Your task to perform on an android device: Open eBay Image 0: 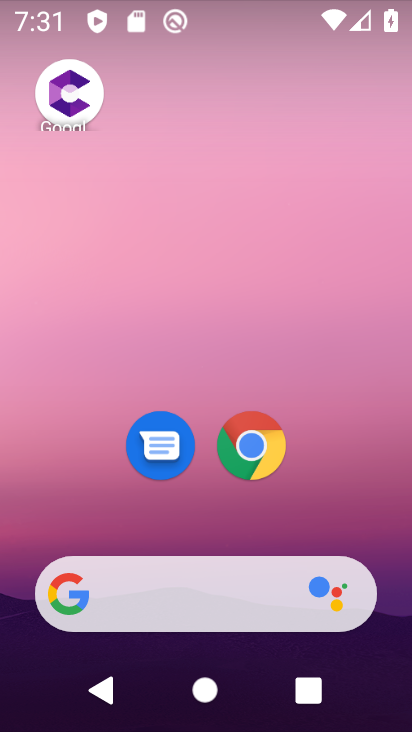
Step 0: drag from (202, 586) to (163, 171)
Your task to perform on an android device: Open eBay Image 1: 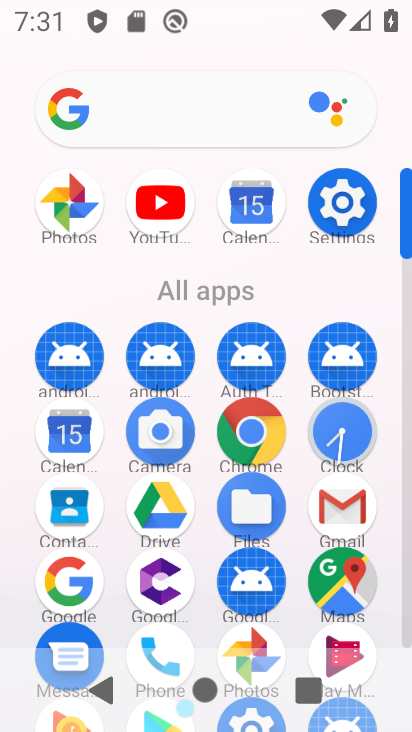
Step 1: click (251, 435)
Your task to perform on an android device: Open eBay Image 2: 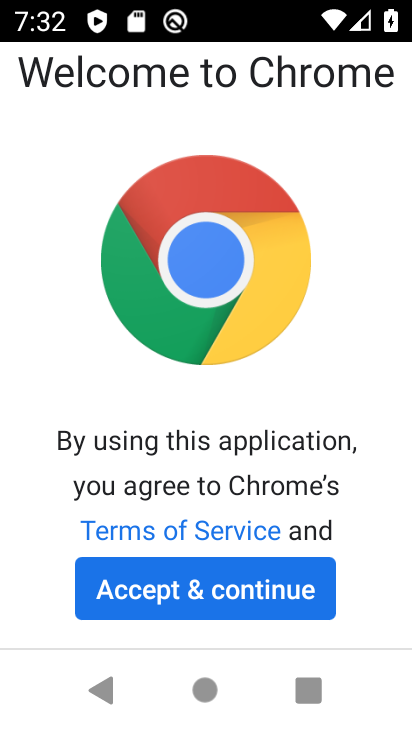
Step 2: click (214, 605)
Your task to perform on an android device: Open eBay Image 3: 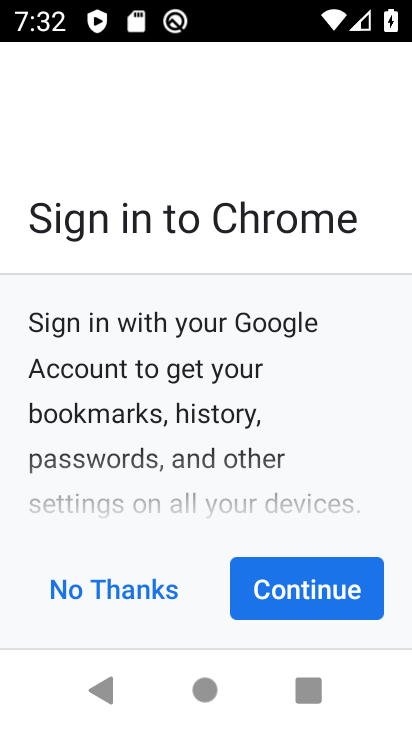
Step 3: click (273, 598)
Your task to perform on an android device: Open eBay Image 4: 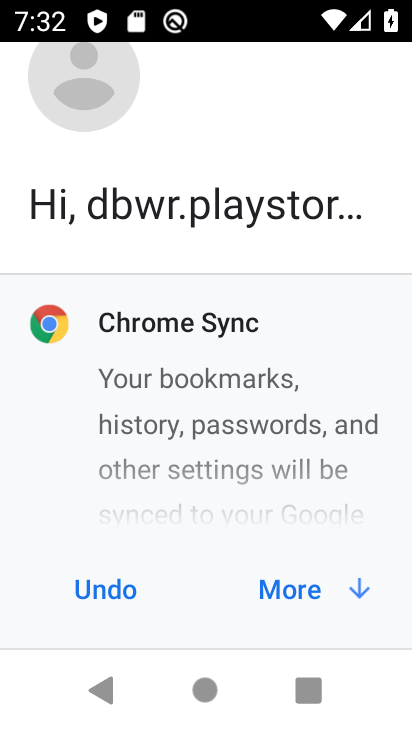
Step 4: click (288, 586)
Your task to perform on an android device: Open eBay Image 5: 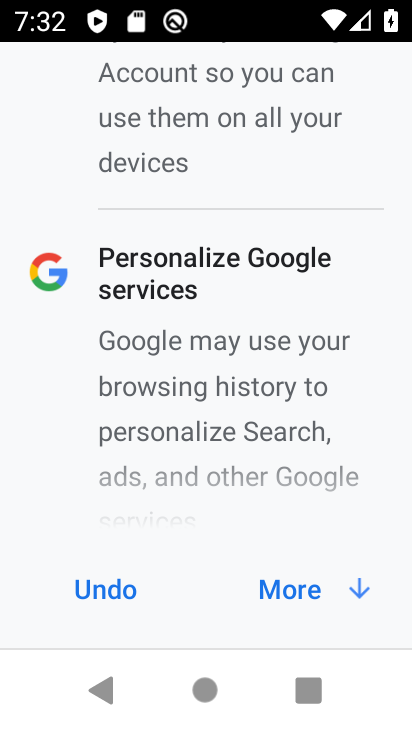
Step 5: click (303, 597)
Your task to perform on an android device: Open eBay Image 6: 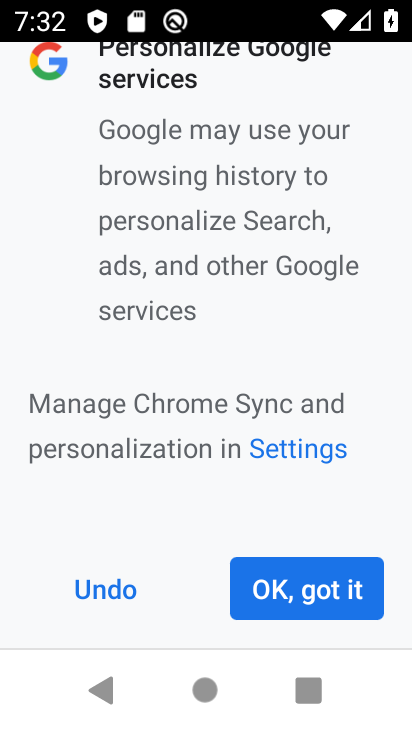
Step 6: click (292, 604)
Your task to perform on an android device: Open eBay Image 7: 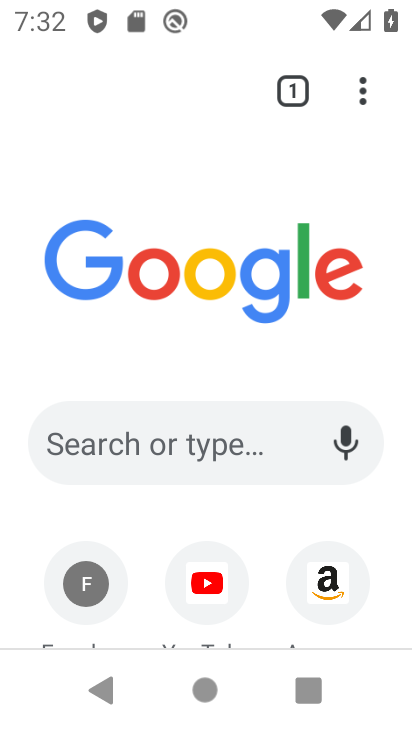
Step 7: drag from (192, 534) to (170, 340)
Your task to perform on an android device: Open eBay Image 8: 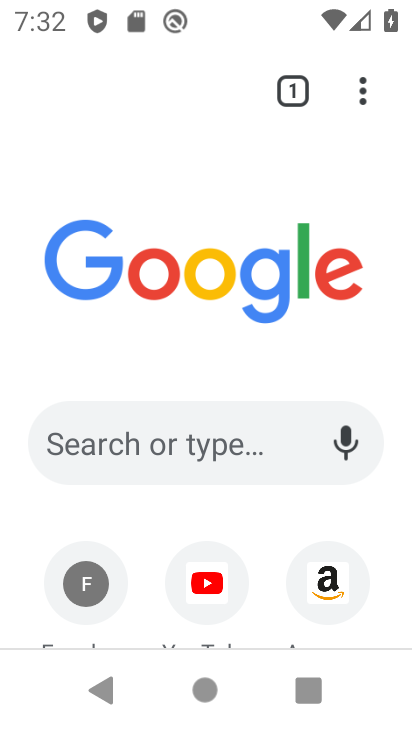
Step 8: click (231, 441)
Your task to perform on an android device: Open eBay Image 9: 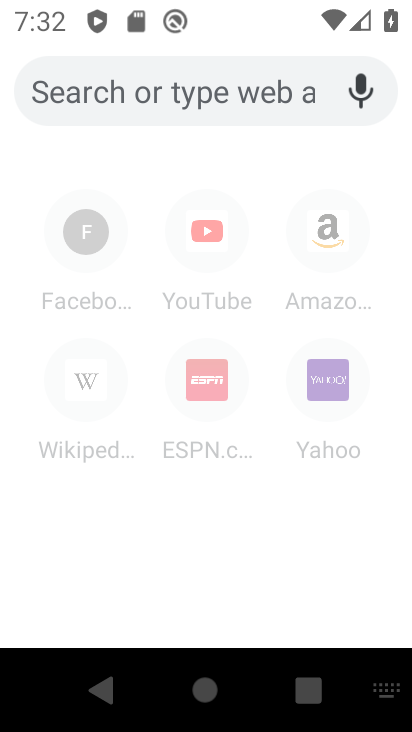
Step 9: type "ebay.com"
Your task to perform on an android device: Open eBay Image 10: 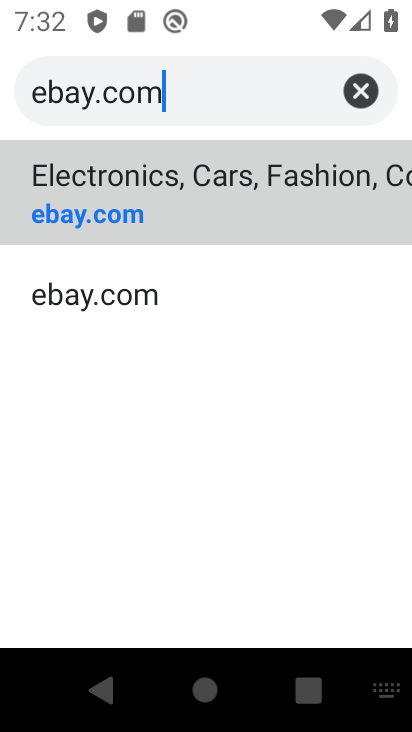
Step 10: click (72, 301)
Your task to perform on an android device: Open eBay Image 11: 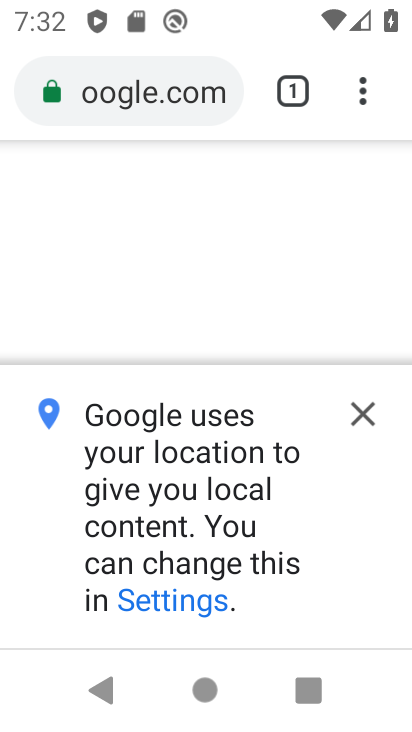
Step 11: click (366, 411)
Your task to perform on an android device: Open eBay Image 12: 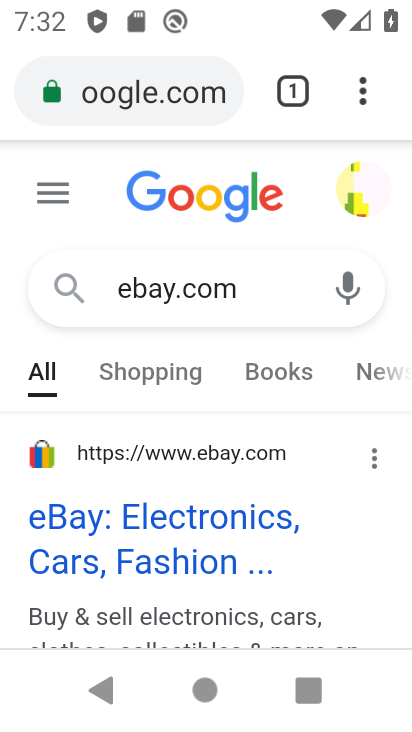
Step 12: drag from (176, 515) to (220, 242)
Your task to perform on an android device: Open eBay Image 13: 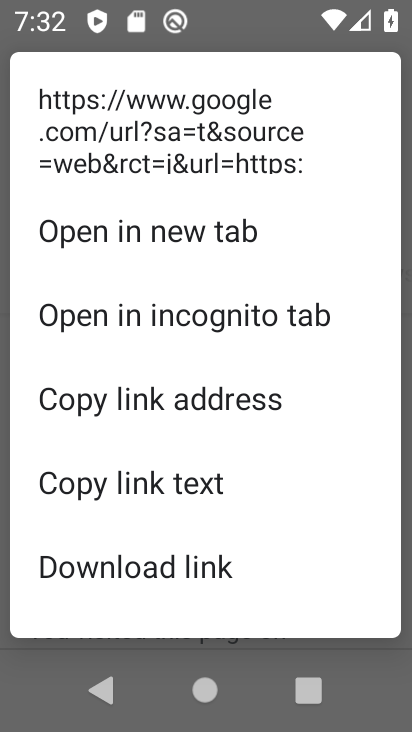
Step 13: click (141, 238)
Your task to perform on an android device: Open eBay Image 14: 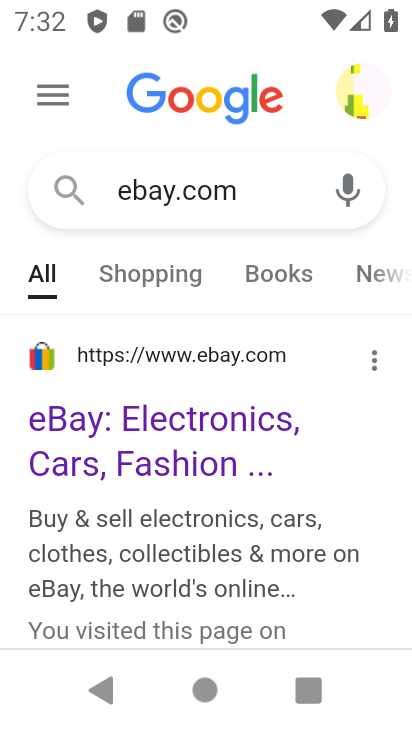
Step 14: task complete